Your task to perform on an android device: Search for pizza restaurants on Maps Image 0: 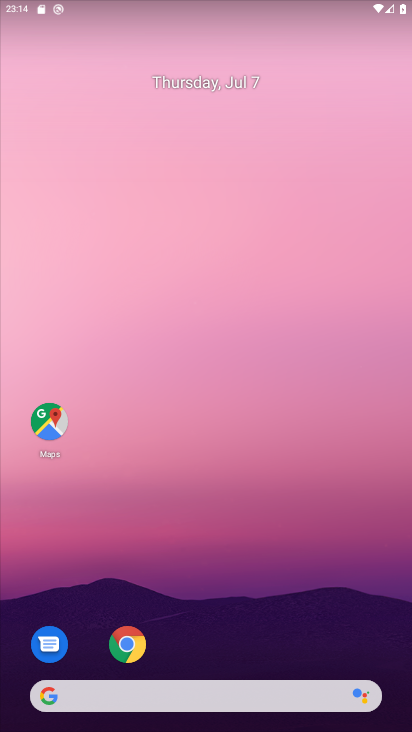
Step 0: drag from (242, 702) to (242, 615)
Your task to perform on an android device: Search for pizza restaurants on Maps Image 1: 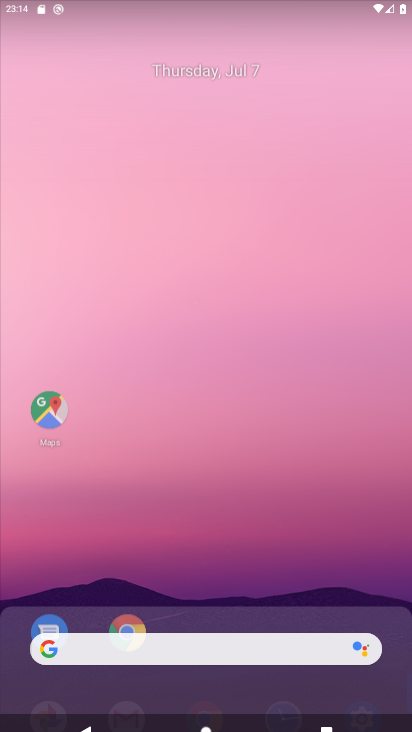
Step 1: click (176, 135)
Your task to perform on an android device: Search for pizza restaurants on Maps Image 2: 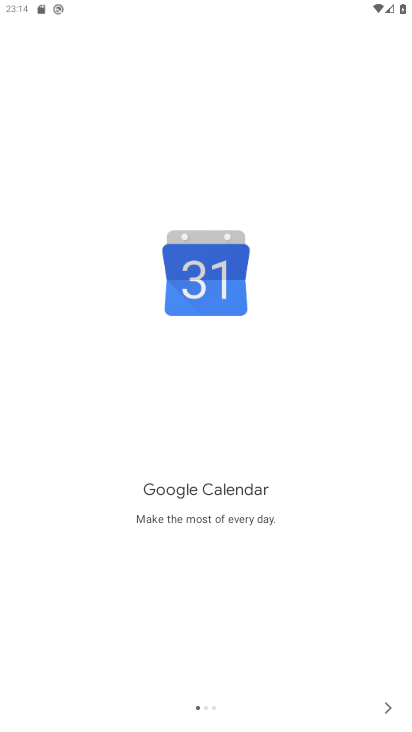
Step 2: press home button
Your task to perform on an android device: Search for pizza restaurants on Maps Image 3: 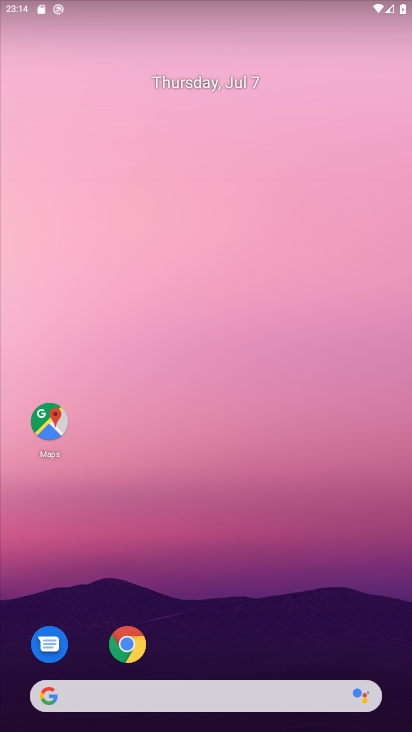
Step 3: drag from (226, 710) to (202, 185)
Your task to perform on an android device: Search for pizza restaurants on Maps Image 4: 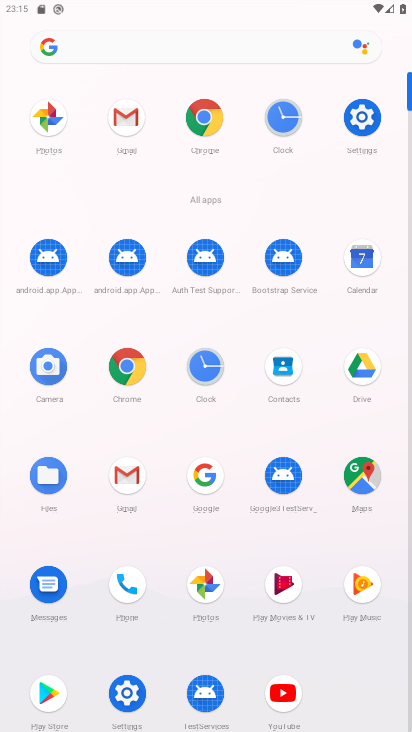
Step 4: click (358, 476)
Your task to perform on an android device: Search for pizza restaurants on Maps Image 5: 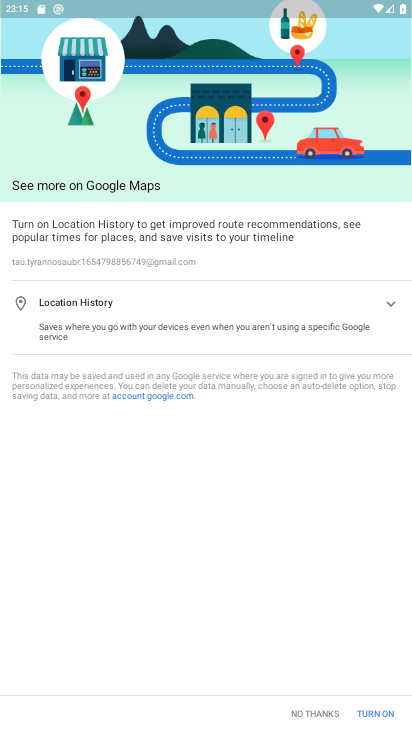
Step 5: click (374, 711)
Your task to perform on an android device: Search for pizza restaurants on Maps Image 6: 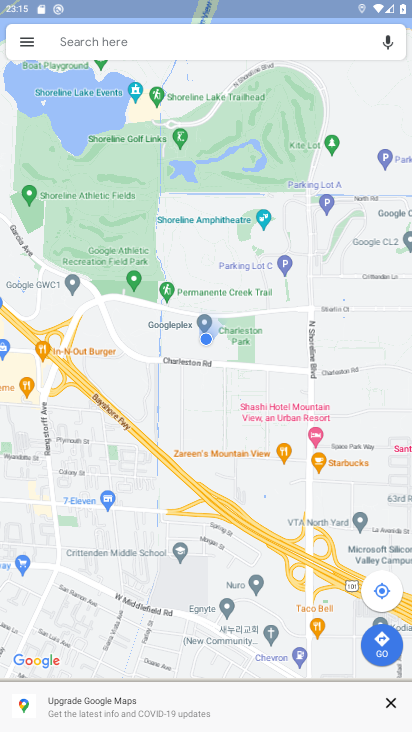
Step 6: click (133, 37)
Your task to perform on an android device: Search for pizza restaurants on Maps Image 7: 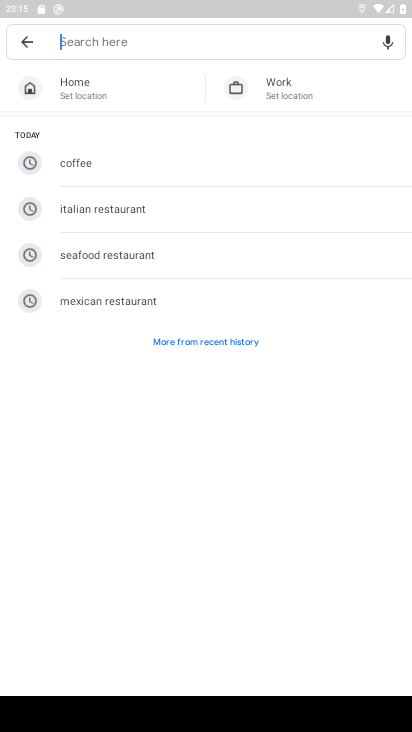
Step 7: type "Pizza Restaurants"
Your task to perform on an android device: Search for pizza restaurants on Maps Image 8: 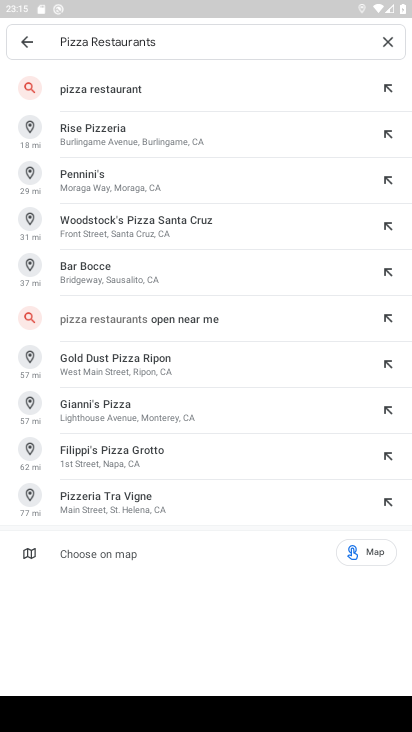
Step 8: click (121, 92)
Your task to perform on an android device: Search for pizza restaurants on Maps Image 9: 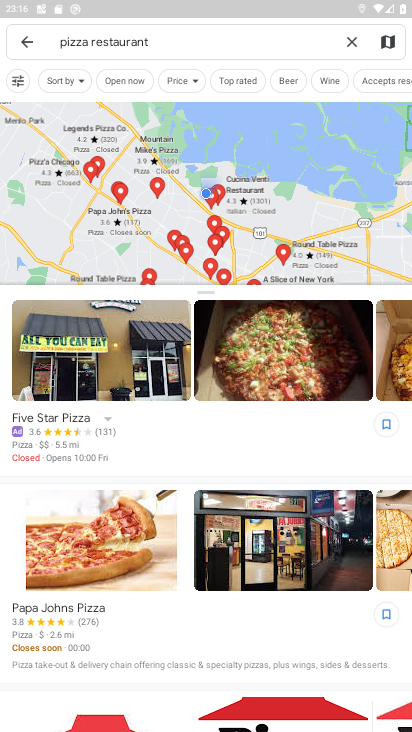
Step 9: task complete